Your task to perform on an android device: search for starred emails in the gmail app Image 0: 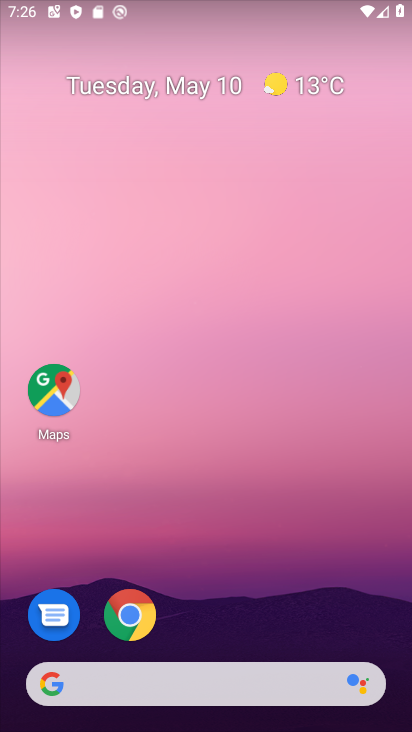
Step 0: drag from (263, 599) to (308, 83)
Your task to perform on an android device: search for starred emails in the gmail app Image 1: 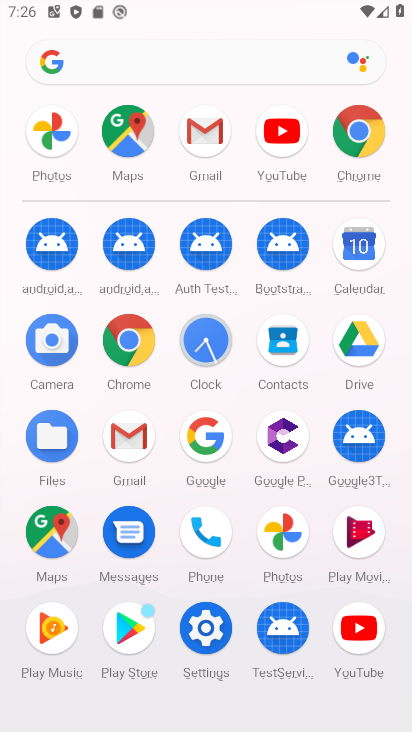
Step 1: click (203, 135)
Your task to perform on an android device: search for starred emails in the gmail app Image 2: 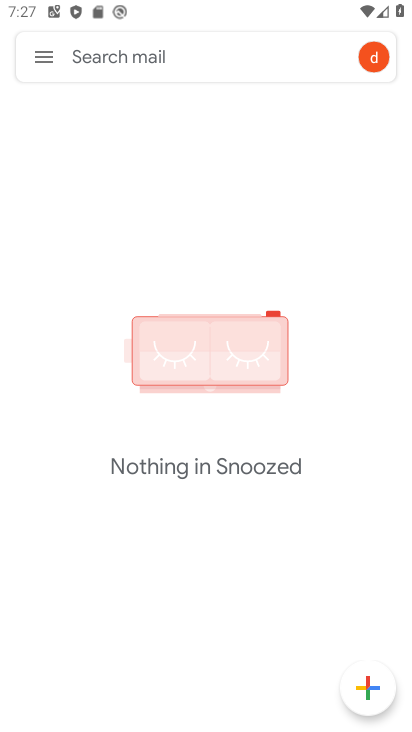
Step 2: click (45, 54)
Your task to perform on an android device: search for starred emails in the gmail app Image 3: 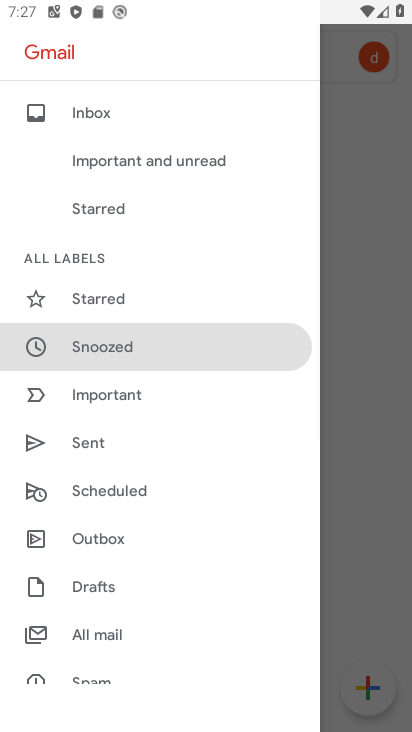
Step 3: click (81, 290)
Your task to perform on an android device: search for starred emails in the gmail app Image 4: 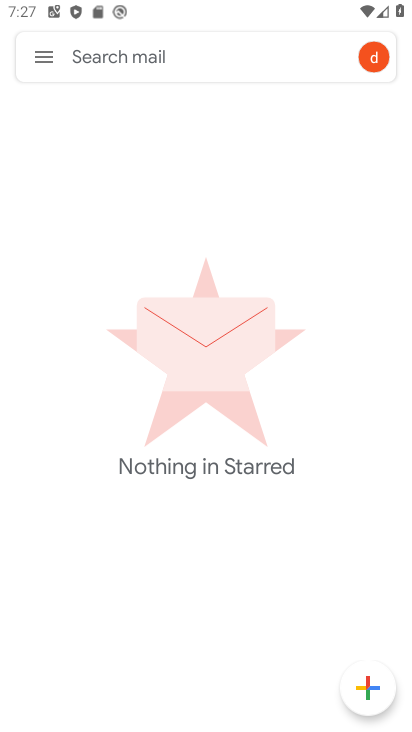
Step 4: task complete